Your task to perform on an android device: check battery use Image 0: 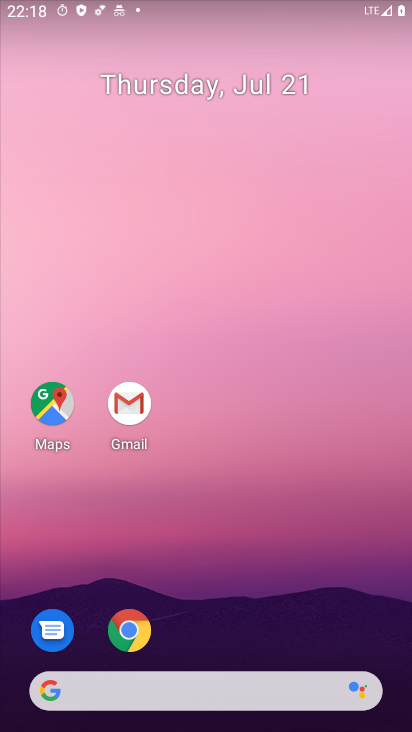
Step 0: drag from (271, 678) to (224, 378)
Your task to perform on an android device: check battery use Image 1: 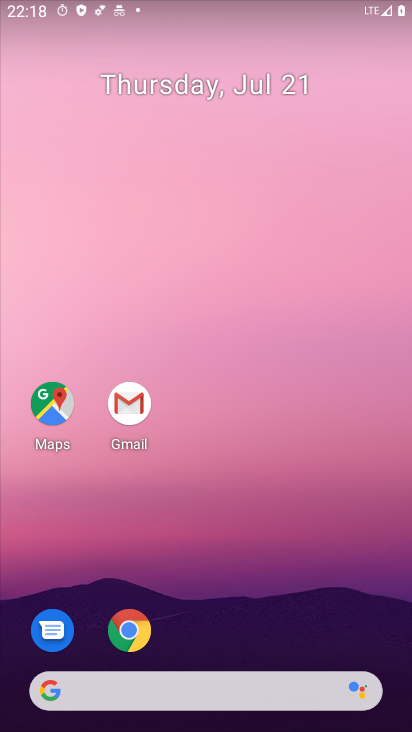
Step 1: drag from (248, 485) to (211, 82)
Your task to perform on an android device: check battery use Image 2: 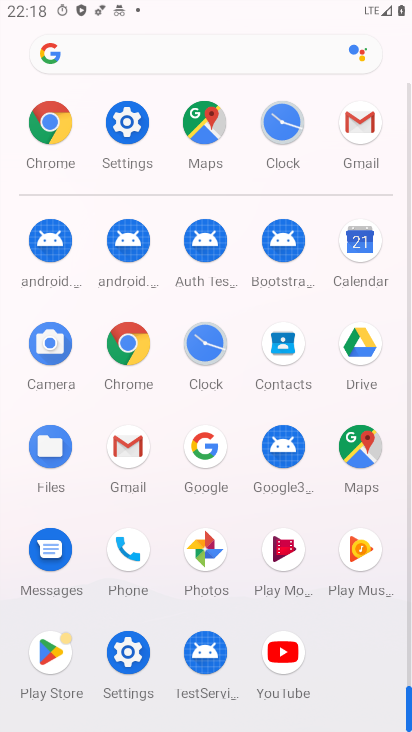
Step 2: click (122, 136)
Your task to perform on an android device: check battery use Image 3: 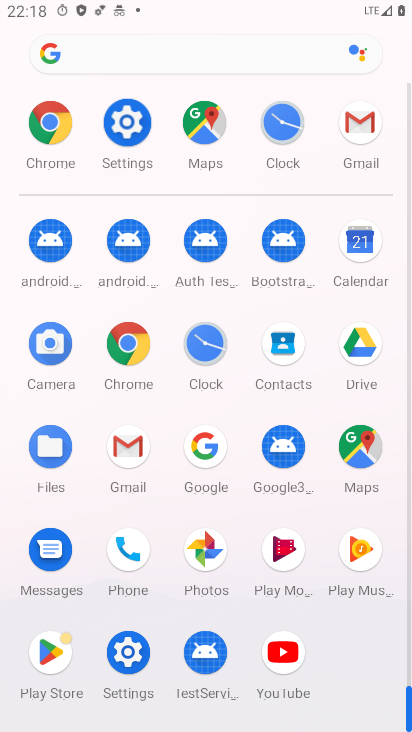
Step 3: click (123, 137)
Your task to perform on an android device: check battery use Image 4: 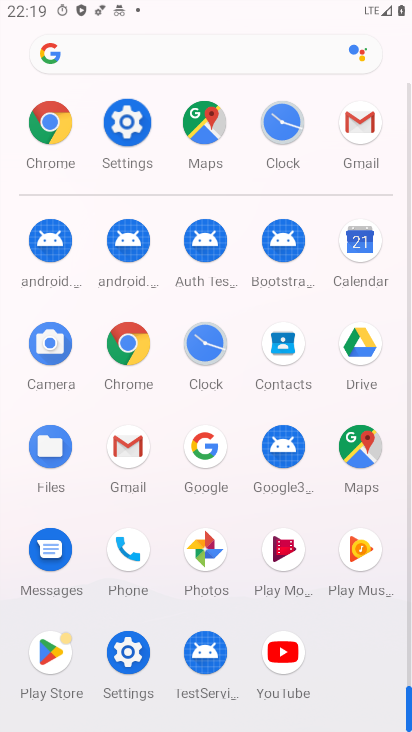
Step 4: click (124, 136)
Your task to perform on an android device: check battery use Image 5: 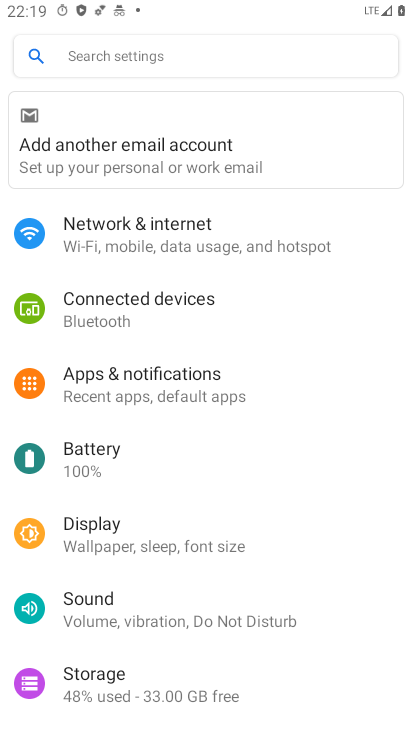
Step 5: click (81, 448)
Your task to perform on an android device: check battery use Image 6: 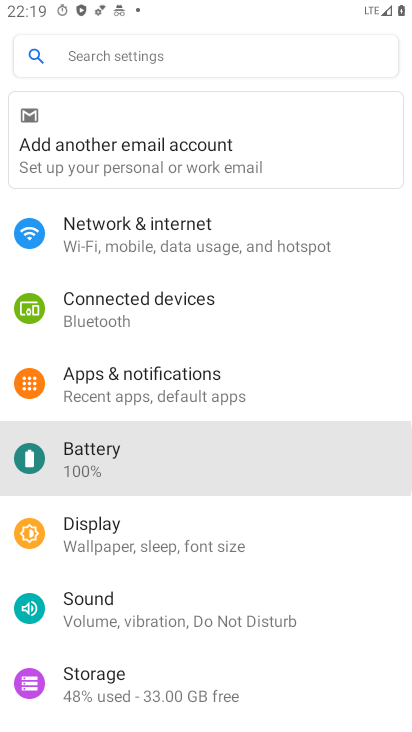
Step 6: click (82, 447)
Your task to perform on an android device: check battery use Image 7: 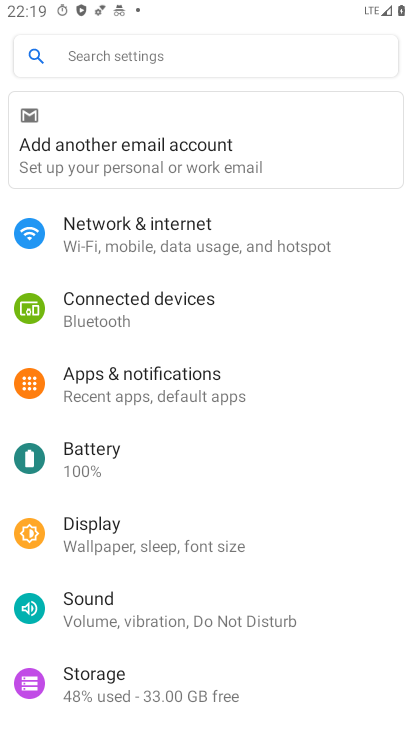
Step 7: click (83, 447)
Your task to perform on an android device: check battery use Image 8: 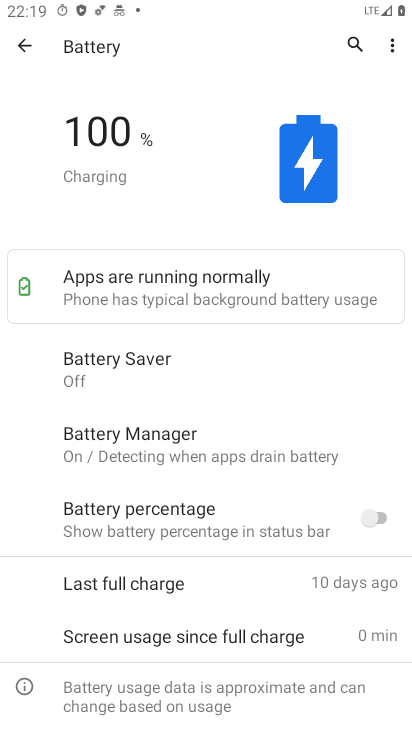
Step 8: task complete